Your task to perform on an android device: show emergency info Image 0: 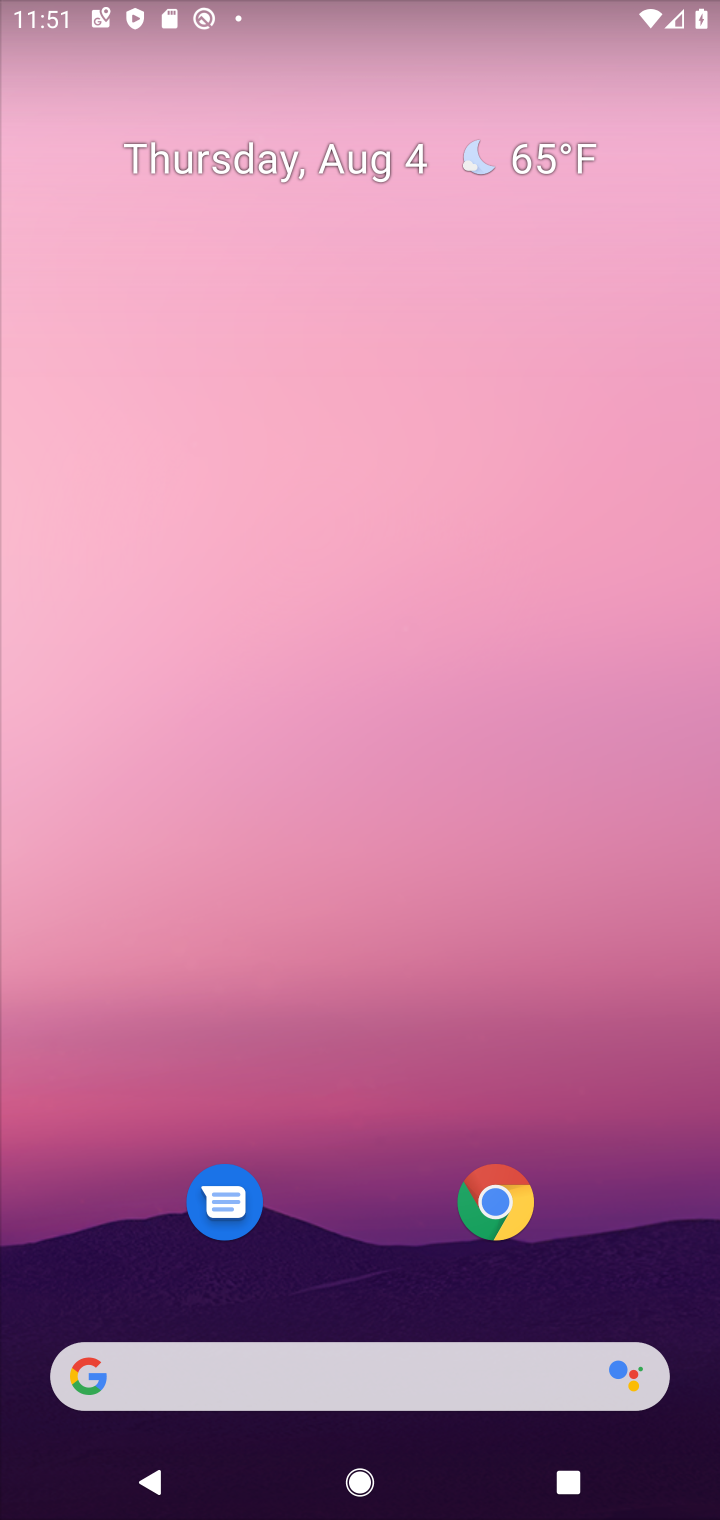
Step 0: drag from (326, 1045) to (377, 154)
Your task to perform on an android device: show emergency info Image 1: 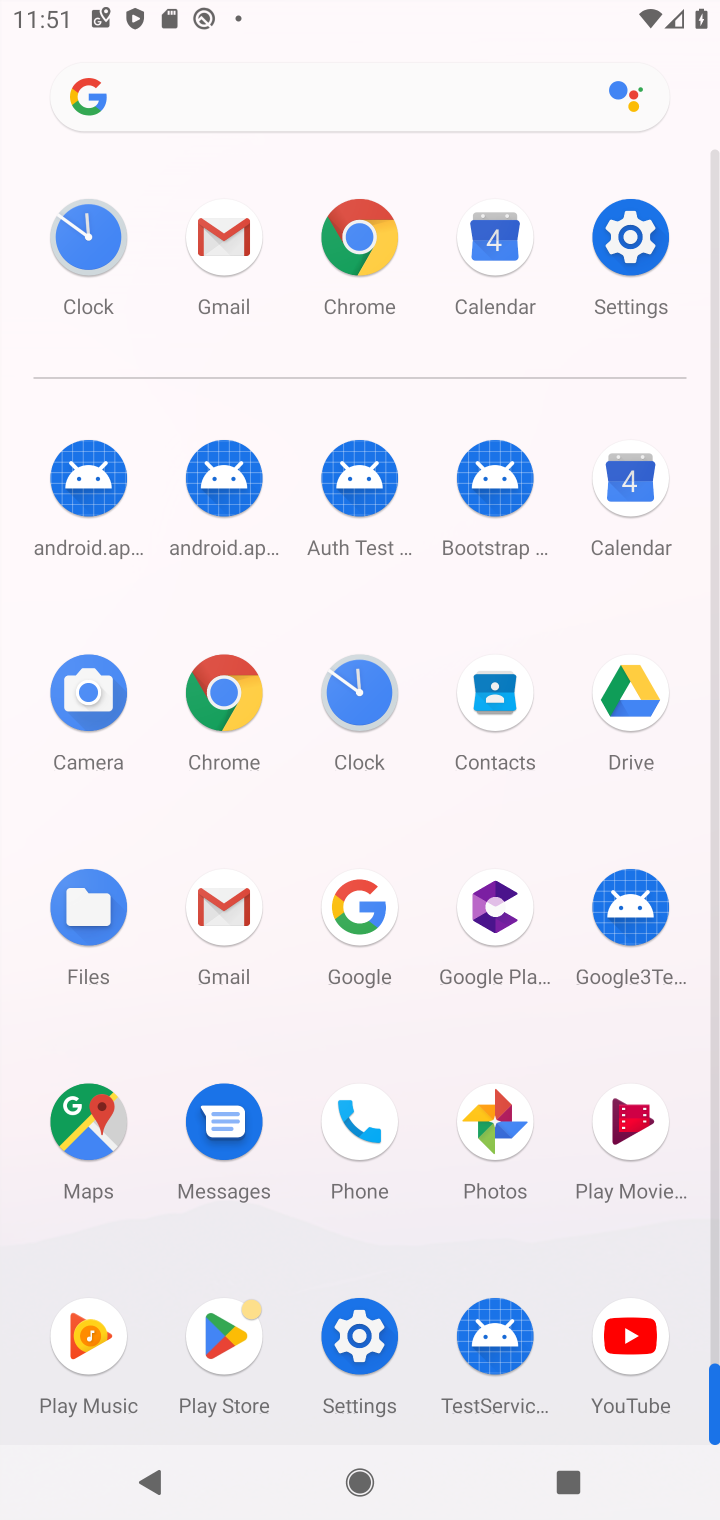
Step 1: click (621, 230)
Your task to perform on an android device: show emergency info Image 2: 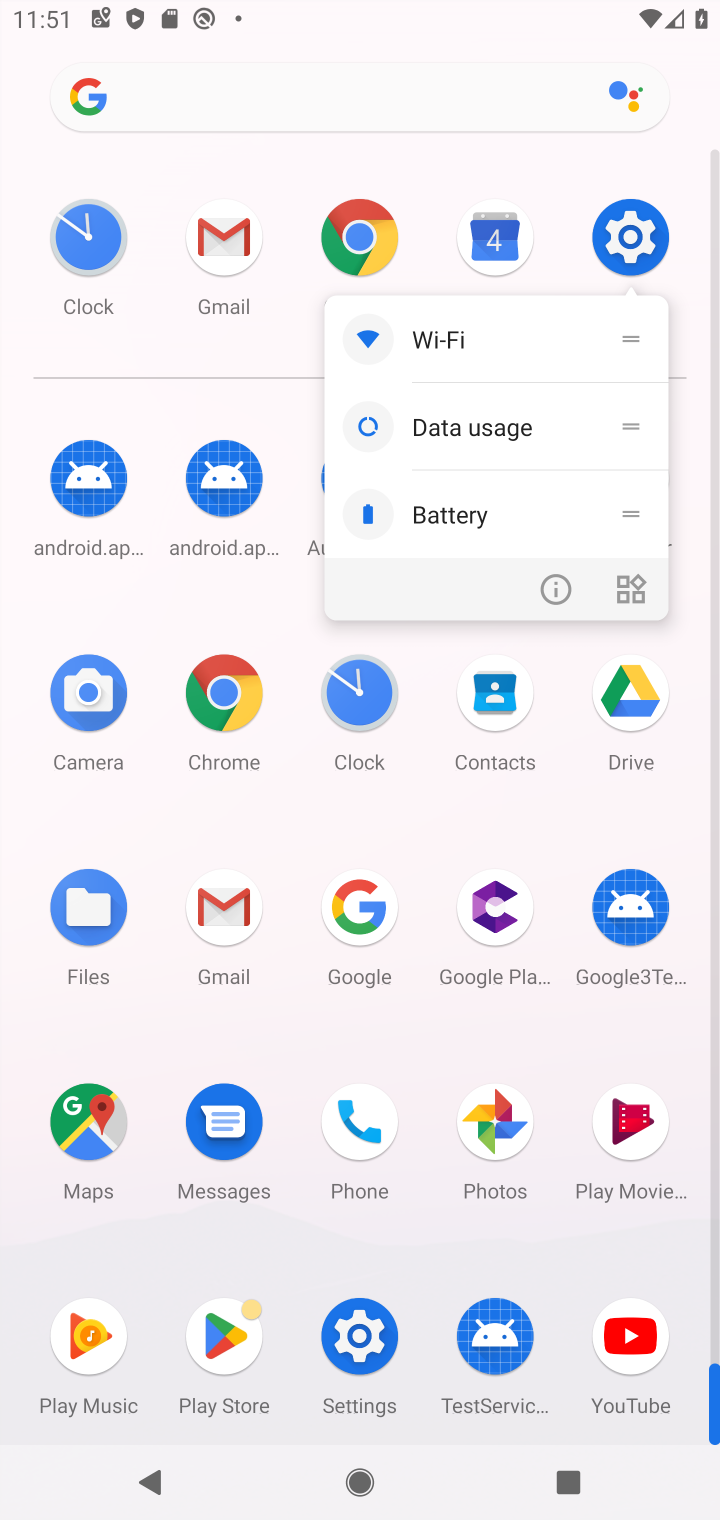
Step 2: click (657, 245)
Your task to perform on an android device: show emergency info Image 3: 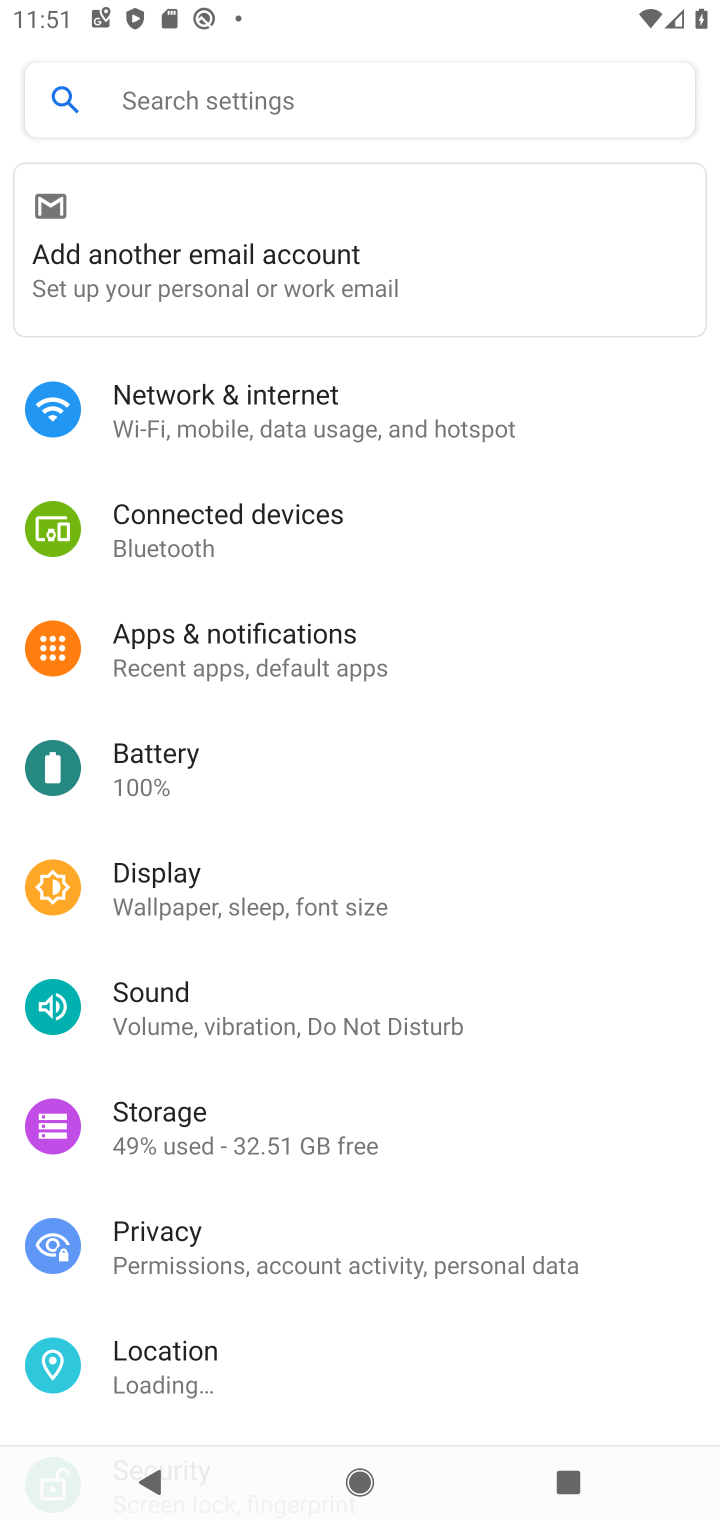
Step 3: drag from (276, 1295) to (382, 10)
Your task to perform on an android device: show emergency info Image 4: 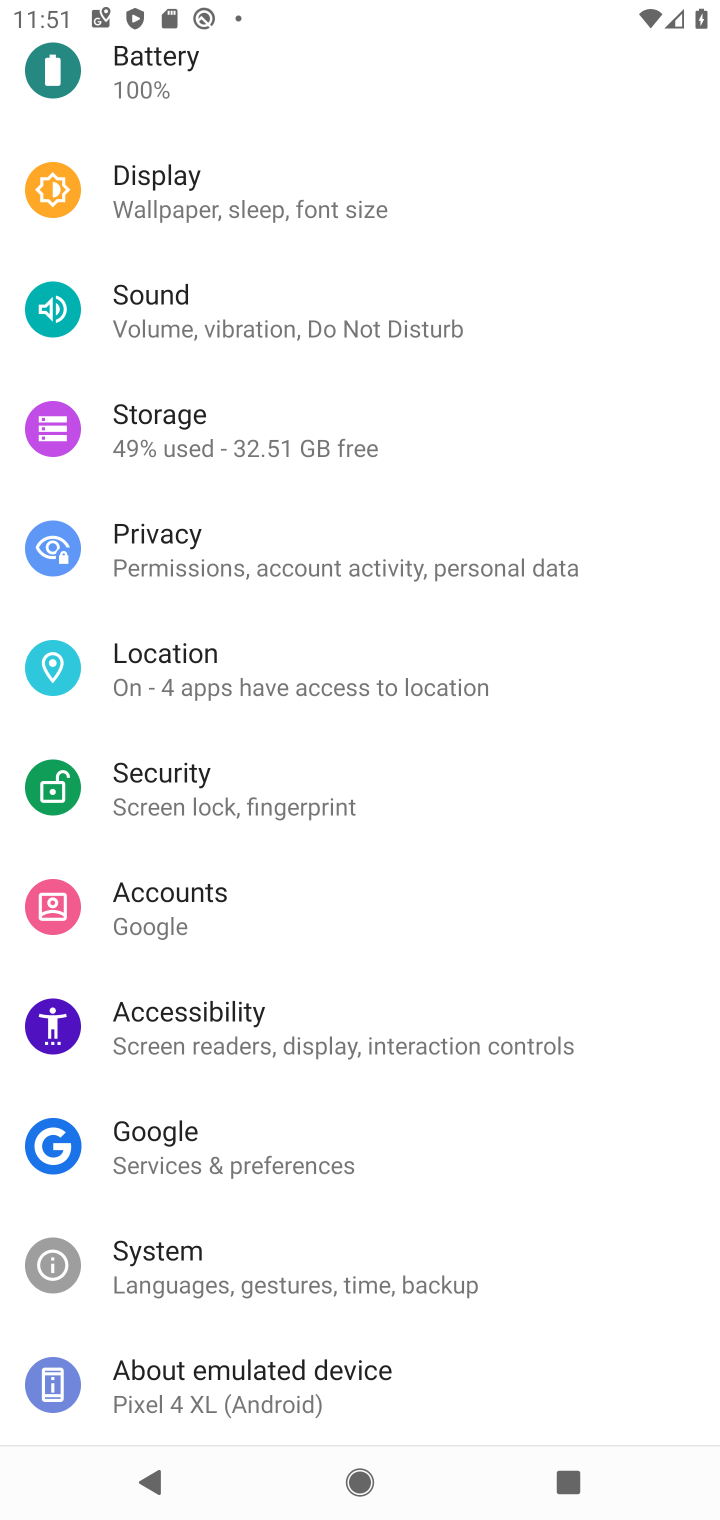
Step 4: click (193, 1363)
Your task to perform on an android device: show emergency info Image 5: 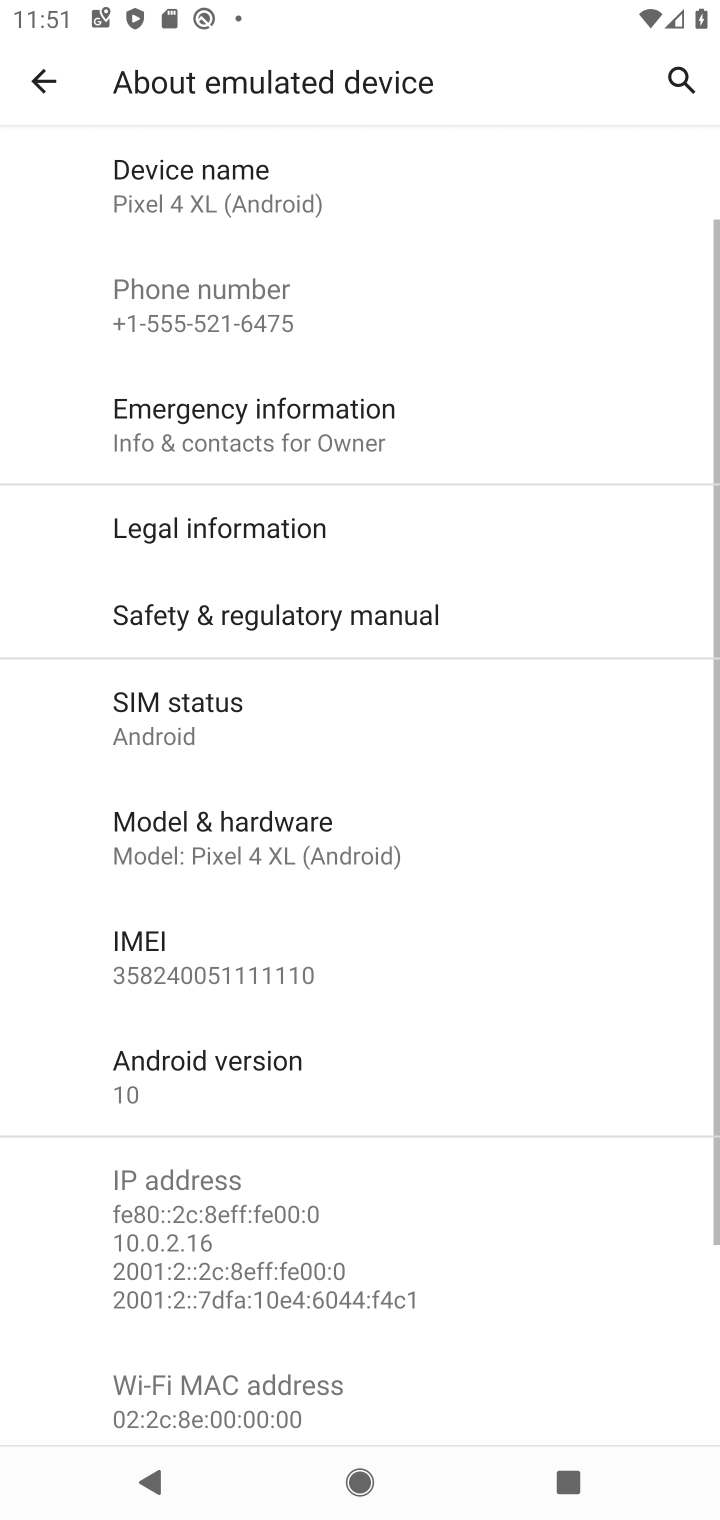
Step 5: click (271, 378)
Your task to perform on an android device: show emergency info Image 6: 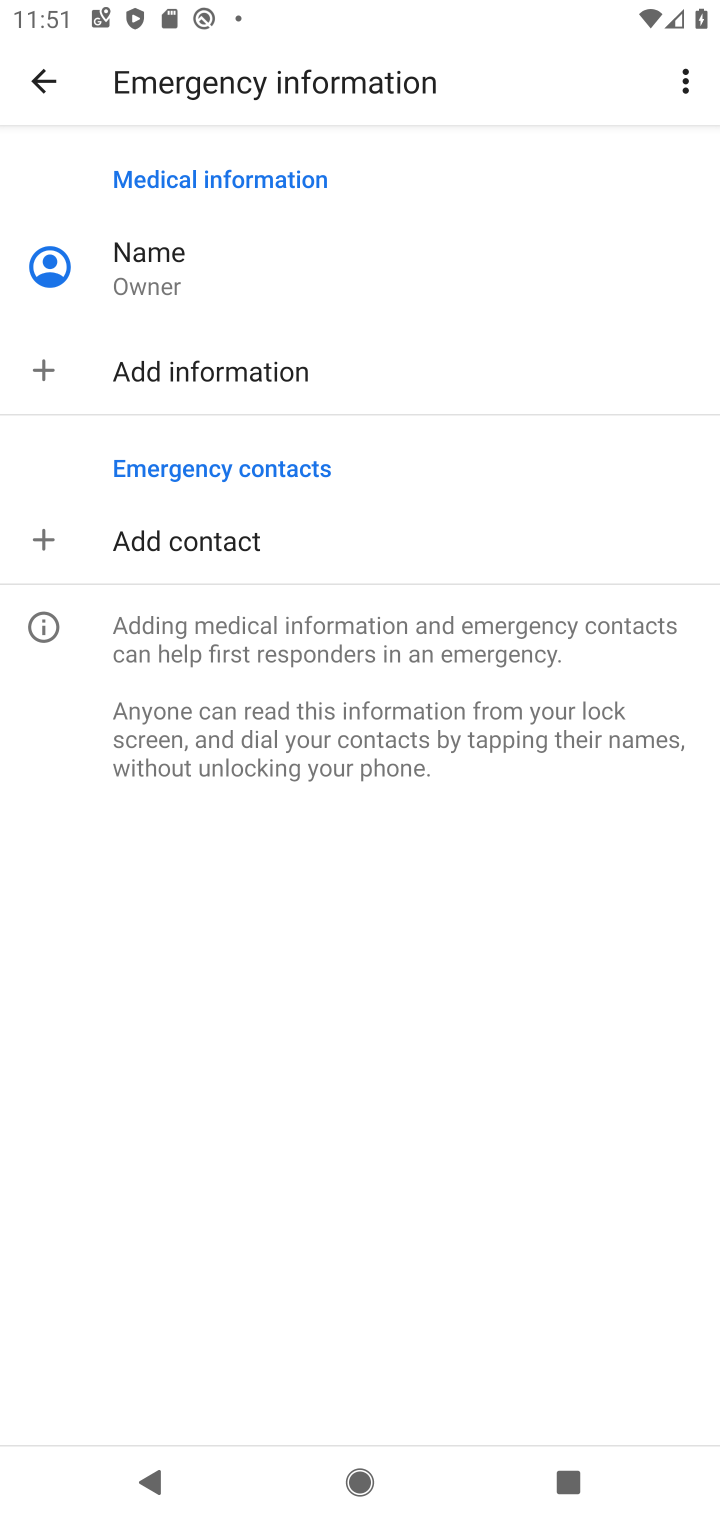
Step 6: task complete